Your task to perform on an android device: open device folders in google photos Image 0: 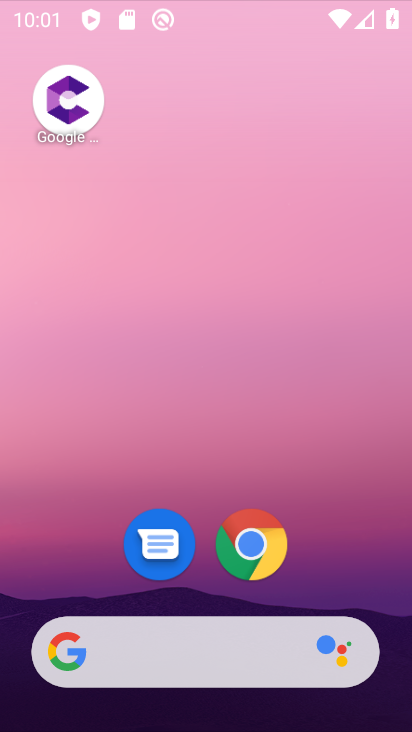
Step 0: drag from (266, 690) to (166, 13)
Your task to perform on an android device: open device folders in google photos Image 1: 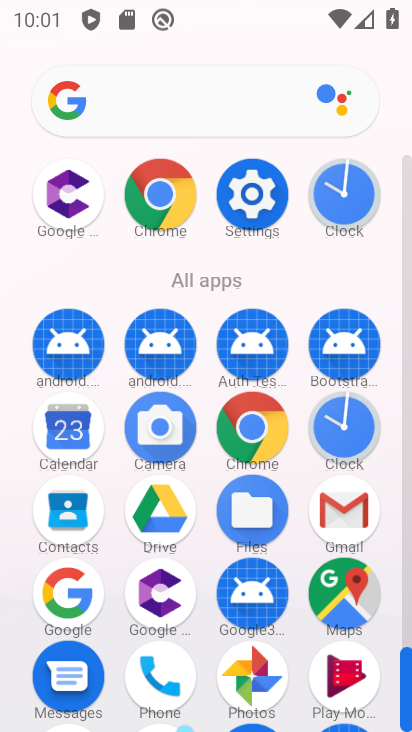
Step 1: click (249, 663)
Your task to perform on an android device: open device folders in google photos Image 2: 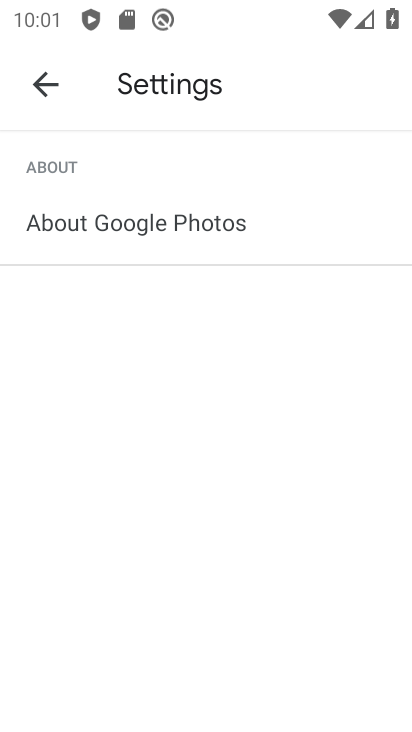
Step 2: click (28, 81)
Your task to perform on an android device: open device folders in google photos Image 3: 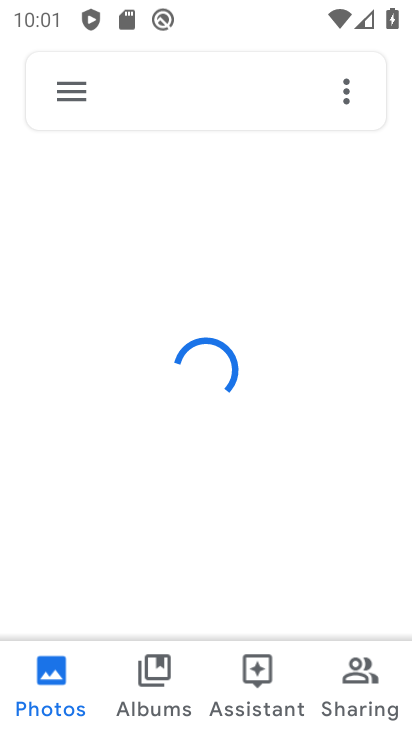
Step 3: click (73, 83)
Your task to perform on an android device: open device folders in google photos Image 4: 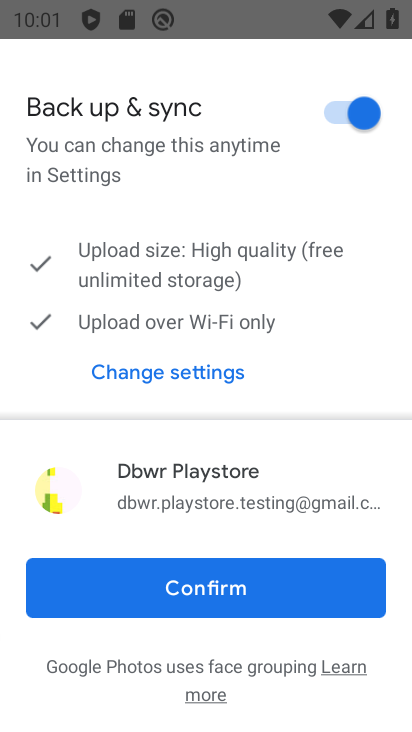
Step 4: click (240, 598)
Your task to perform on an android device: open device folders in google photos Image 5: 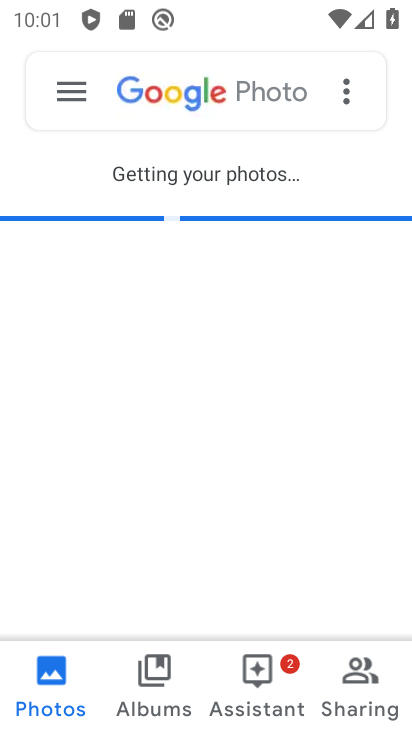
Step 5: click (64, 104)
Your task to perform on an android device: open device folders in google photos Image 6: 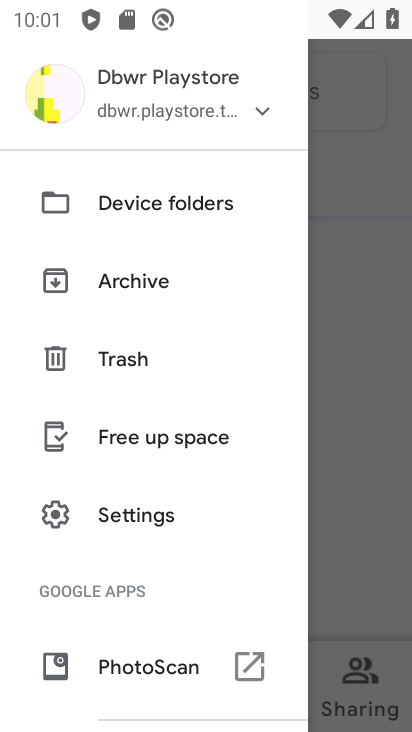
Step 6: click (114, 205)
Your task to perform on an android device: open device folders in google photos Image 7: 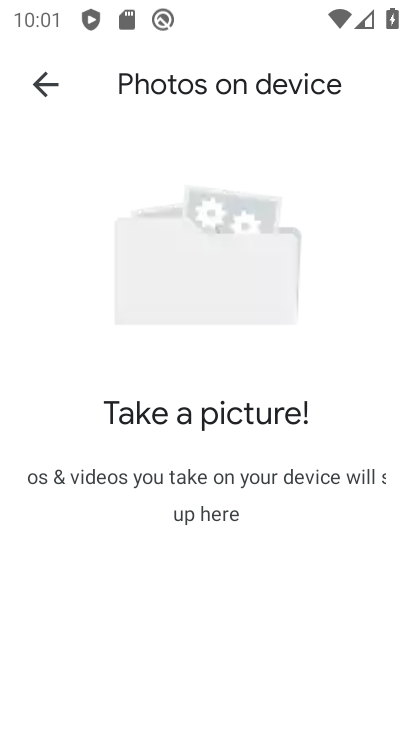
Step 7: task complete